Your task to perform on an android device: Check the news Image 0: 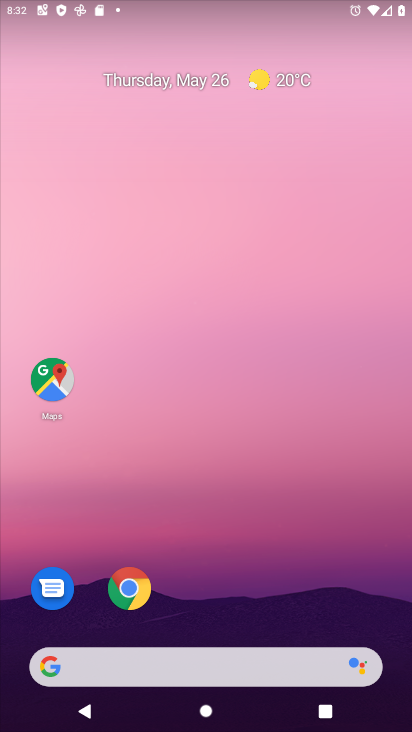
Step 0: drag from (393, 650) to (246, 36)
Your task to perform on an android device: Check the news Image 1: 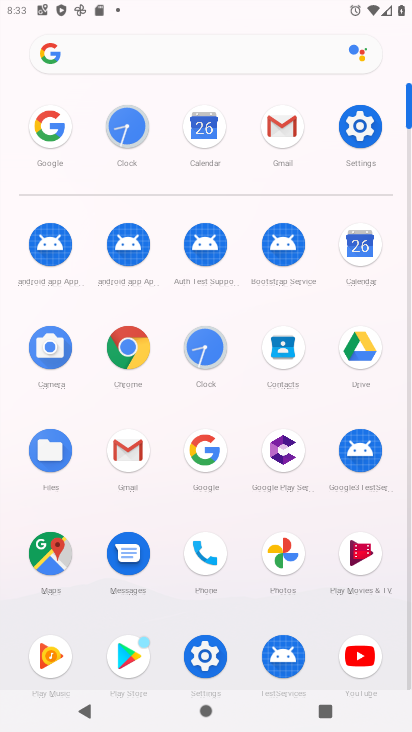
Step 1: click (192, 468)
Your task to perform on an android device: Check the news Image 2: 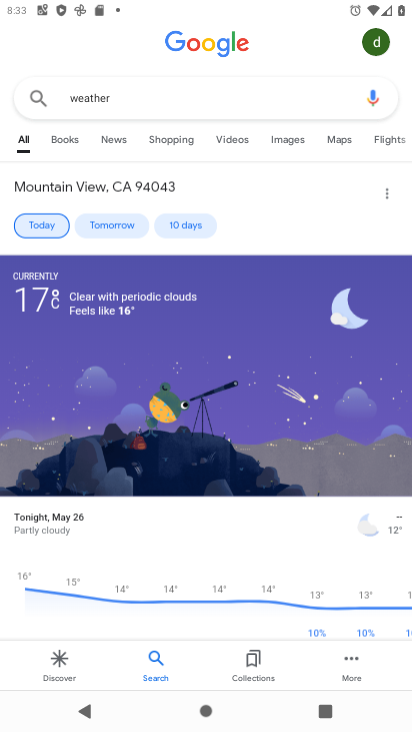
Step 2: press back button
Your task to perform on an android device: Check the news Image 3: 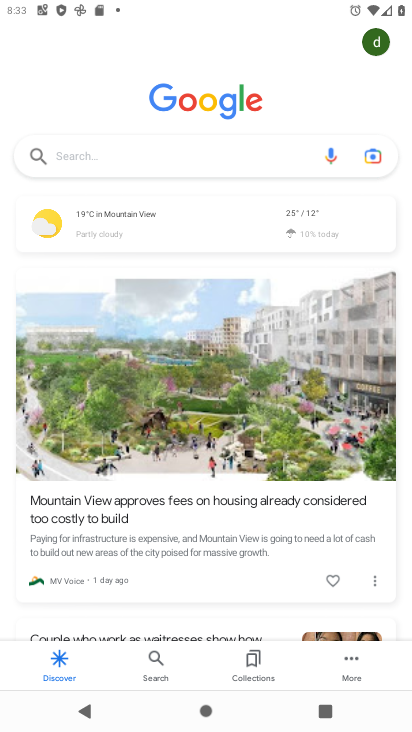
Step 3: click (112, 157)
Your task to perform on an android device: Check the news Image 4: 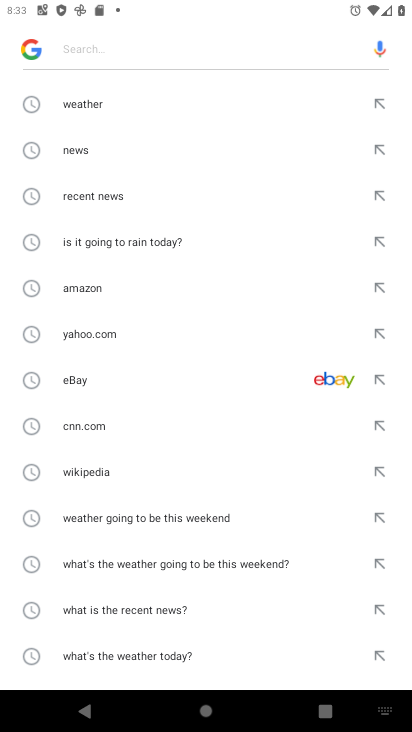
Step 4: click (79, 159)
Your task to perform on an android device: Check the news Image 5: 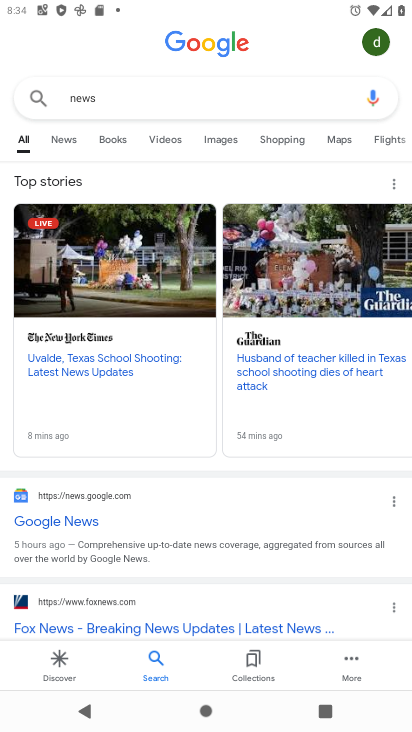
Step 5: task complete